Your task to perform on an android device: turn notification dots off Image 0: 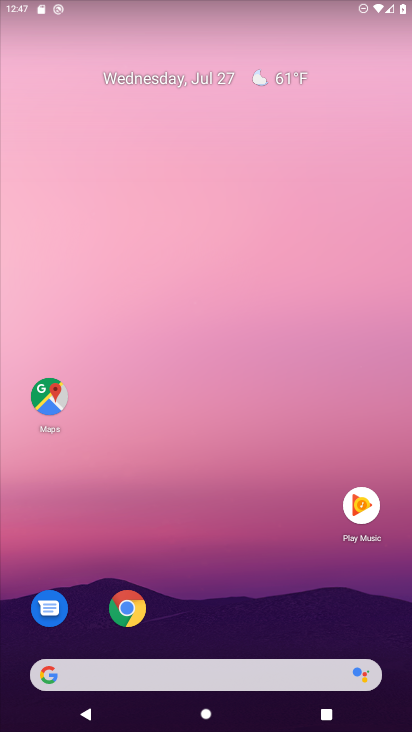
Step 0: press home button
Your task to perform on an android device: turn notification dots off Image 1: 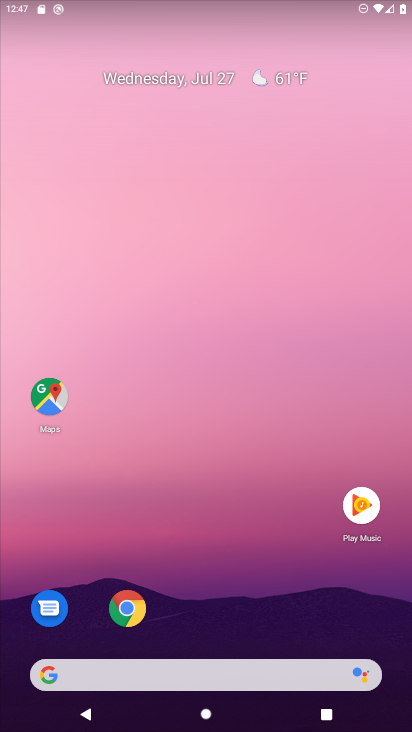
Step 1: drag from (302, 620) to (292, 156)
Your task to perform on an android device: turn notification dots off Image 2: 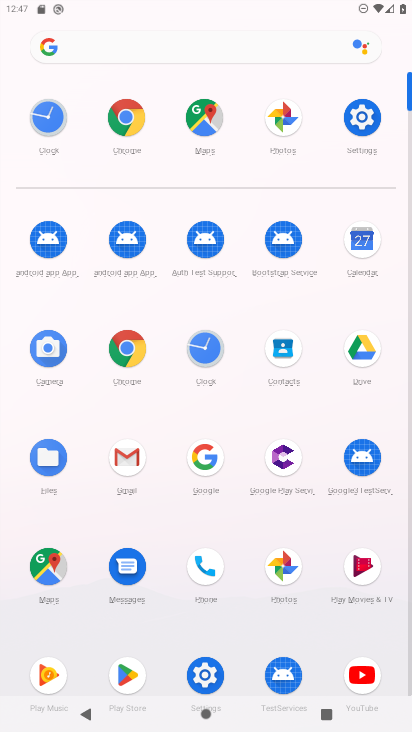
Step 2: click (366, 113)
Your task to perform on an android device: turn notification dots off Image 3: 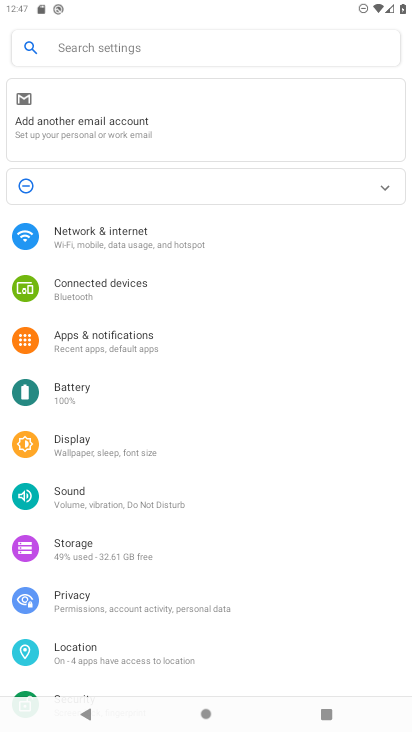
Step 3: drag from (318, 452) to (326, 399)
Your task to perform on an android device: turn notification dots off Image 4: 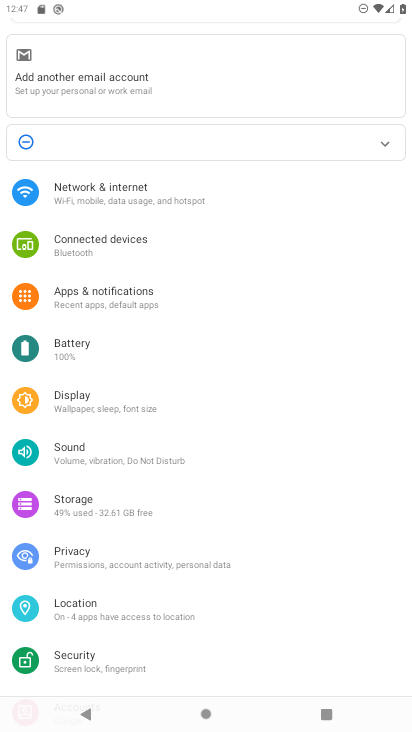
Step 4: drag from (329, 486) to (335, 426)
Your task to perform on an android device: turn notification dots off Image 5: 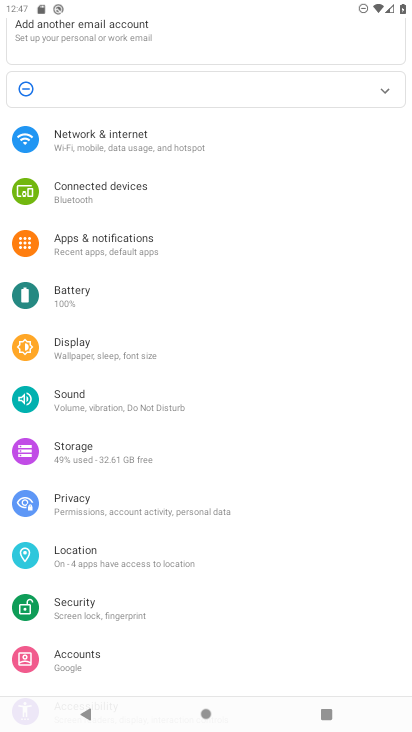
Step 5: drag from (319, 530) to (321, 463)
Your task to perform on an android device: turn notification dots off Image 6: 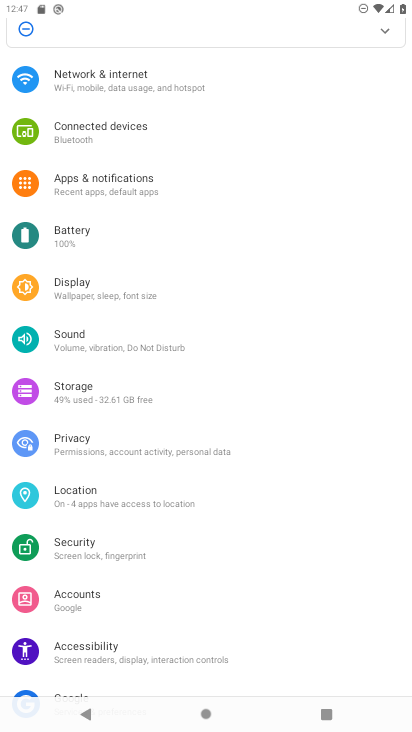
Step 6: drag from (319, 539) to (319, 474)
Your task to perform on an android device: turn notification dots off Image 7: 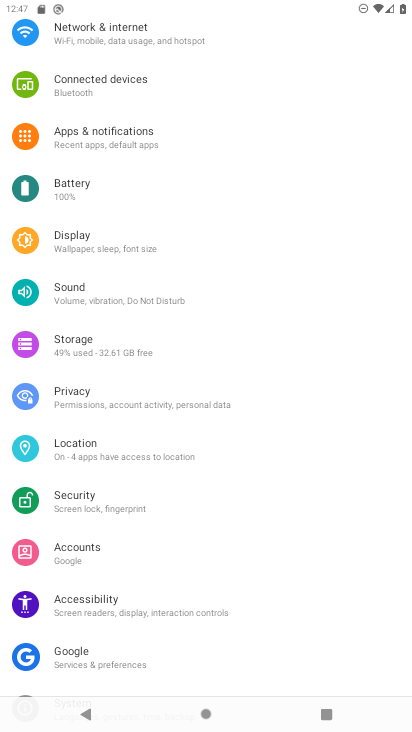
Step 7: drag from (320, 544) to (322, 486)
Your task to perform on an android device: turn notification dots off Image 8: 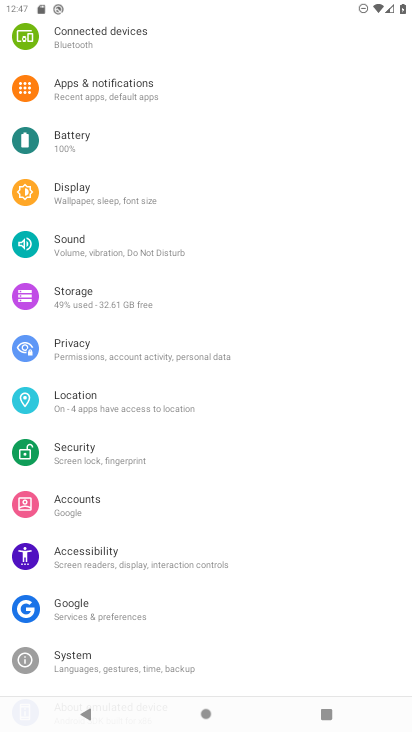
Step 8: drag from (321, 568) to (324, 500)
Your task to perform on an android device: turn notification dots off Image 9: 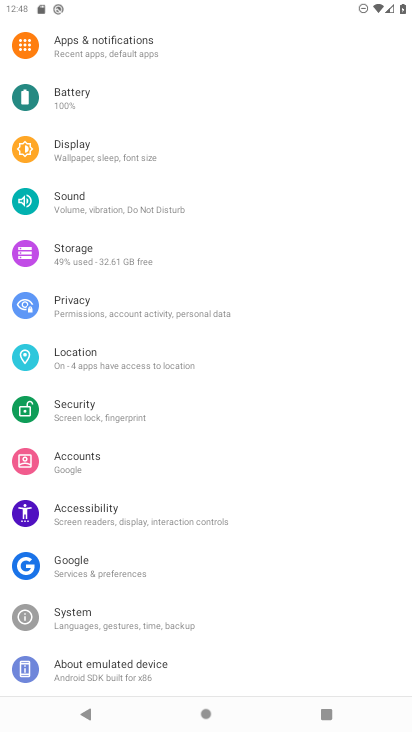
Step 9: drag from (315, 394) to (315, 464)
Your task to perform on an android device: turn notification dots off Image 10: 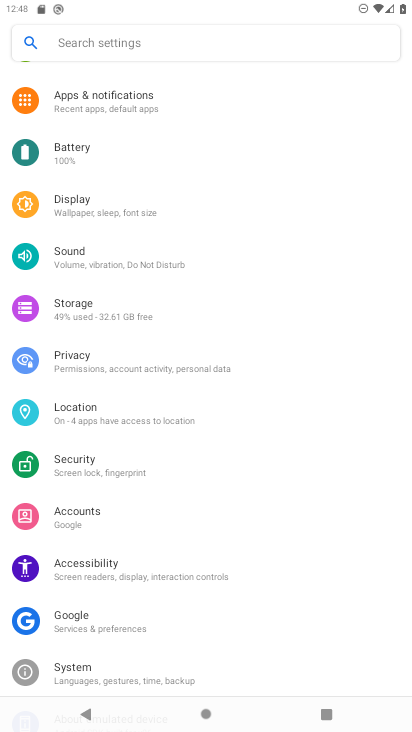
Step 10: drag from (320, 316) to (320, 430)
Your task to perform on an android device: turn notification dots off Image 11: 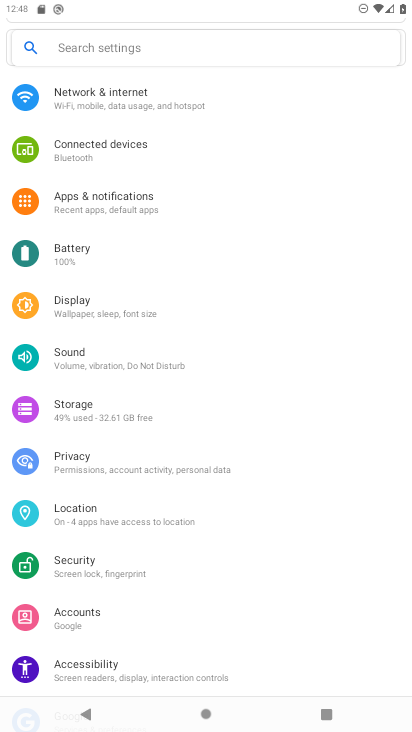
Step 11: drag from (319, 286) to (318, 457)
Your task to perform on an android device: turn notification dots off Image 12: 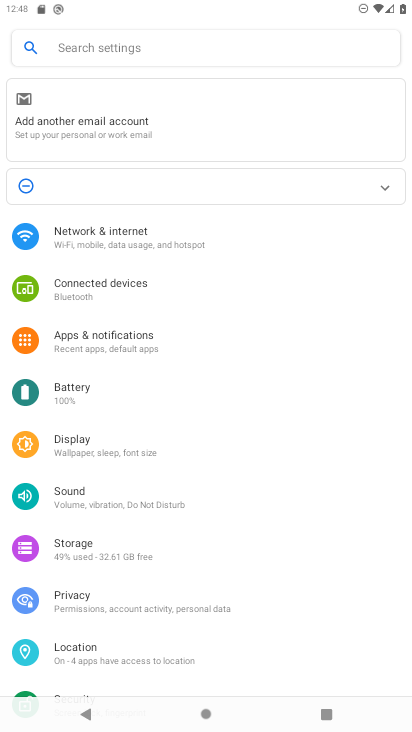
Step 12: click (148, 327)
Your task to perform on an android device: turn notification dots off Image 13: 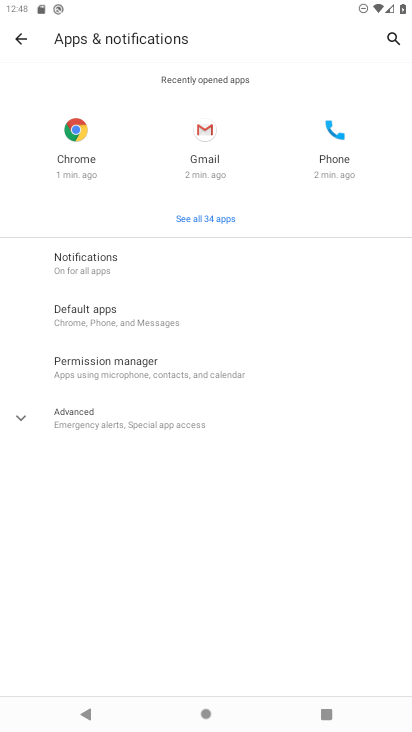
Step 13: click (144, 275)
Your task to perform on an android device: turn notification dots off Image 14: 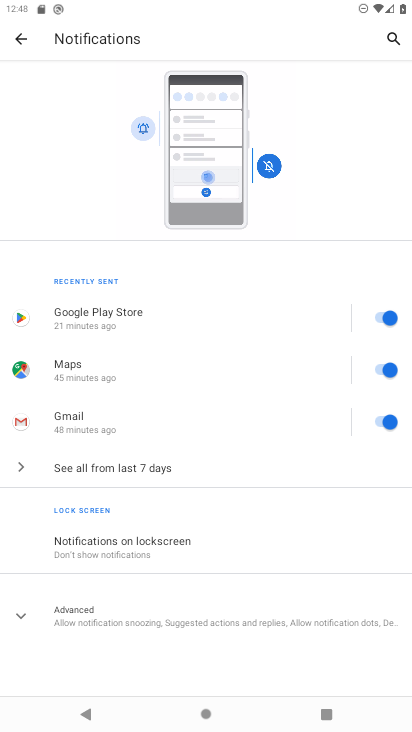
Step 14: click (256, 478)
Your task to perform on an android device: turn notification dots off Image 15: 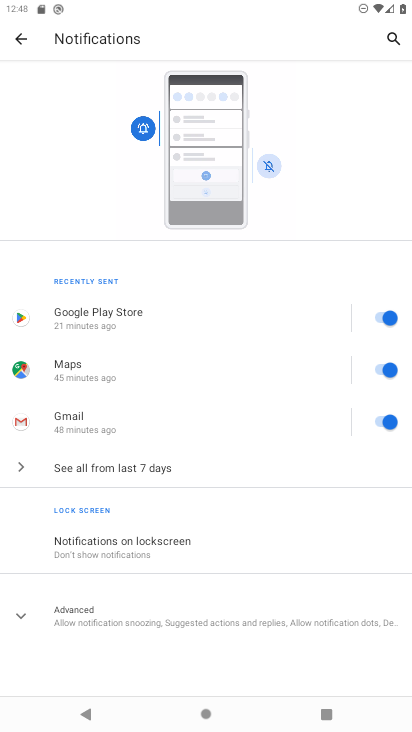
Step 15: click (250, 579)
Your task to perform on an android device: turn notification dots off Image 16: 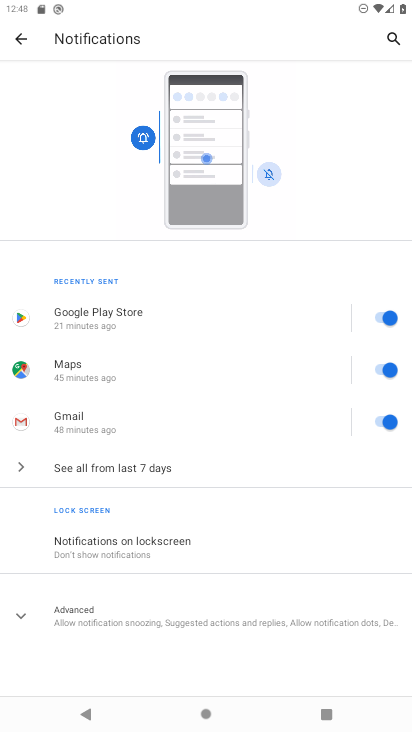
Step 16: click (219, 610)
Your task to perform on an android device: turn notification dots off Image 17: 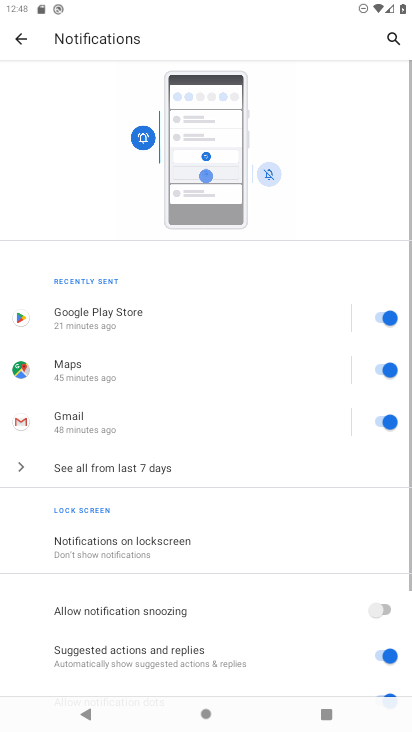
Step 17: drag from (236, 572) to (247, 504)
Your task to perform on an android device: turn notification dots off Image 18: 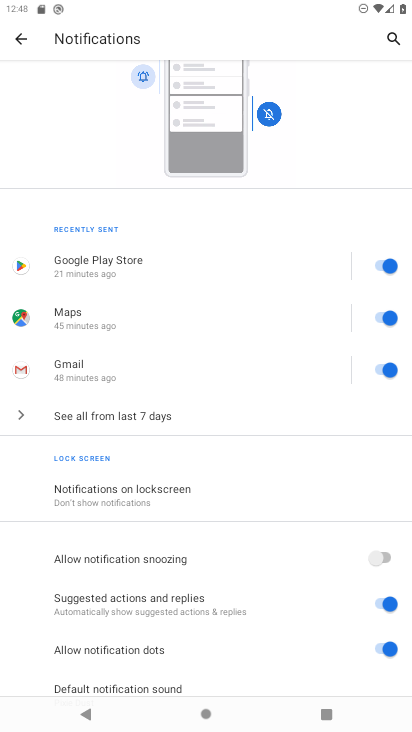
Step 18: drag from (253, 585) to (261, 504)
Your task to perform on an android device: turn notification dots off Image 19: 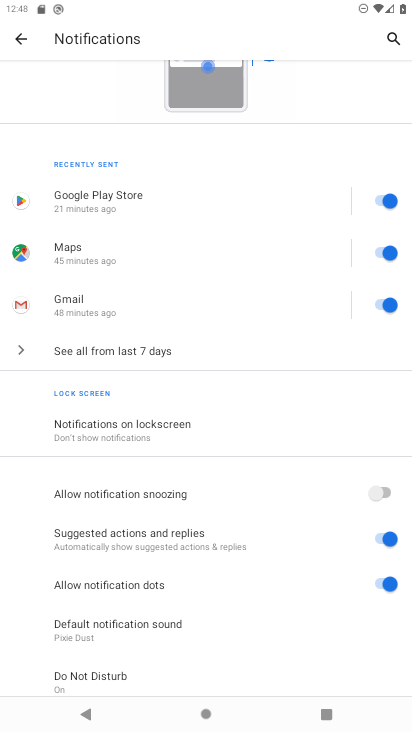
Step 19: drag from (262, 594) to (267, 515)
Your task to perform on an android device: turn notification dots off Image 20: 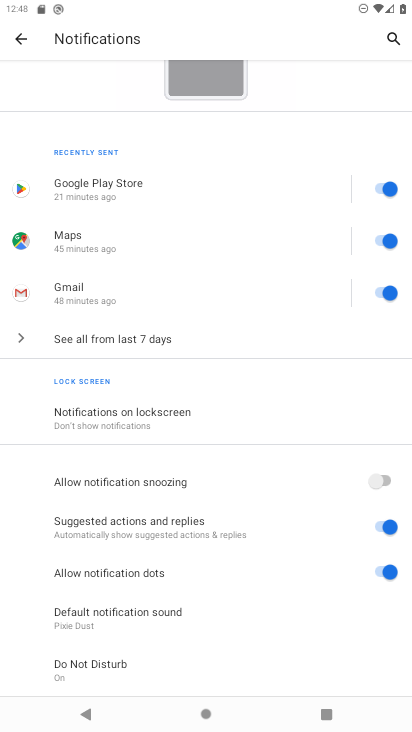
Step 20: click (388, 571)
Your task to perform on an android device: turn notification dots off Image 21: 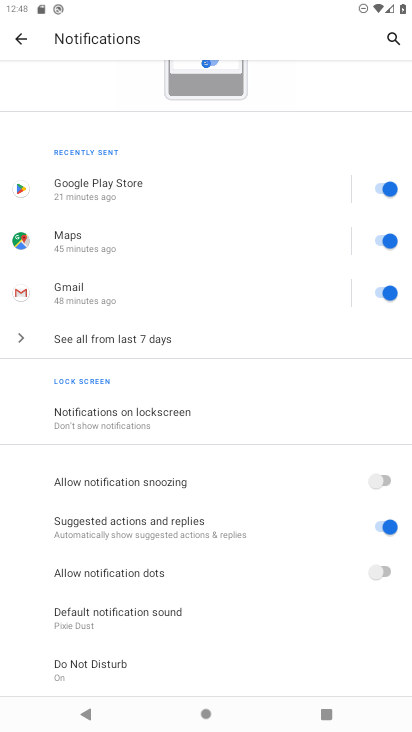
Step 21: task complete